Your task to perform on an android device: turn off sleep mode Image 0: 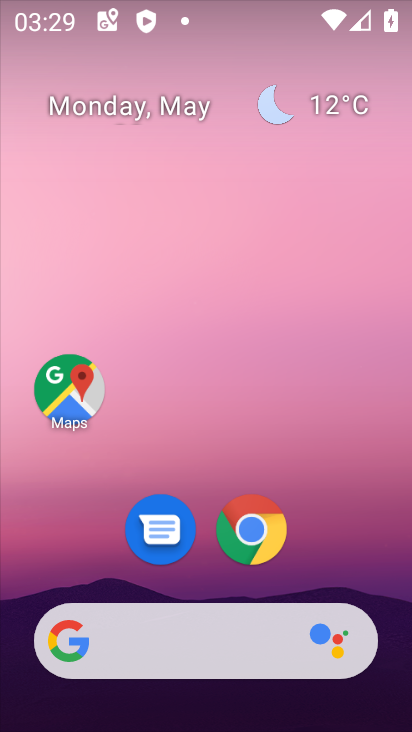
Step 0: drag from (337, 512) to (338, 106)
Your task to perform on an android device: turn off sleep mode Image 1: 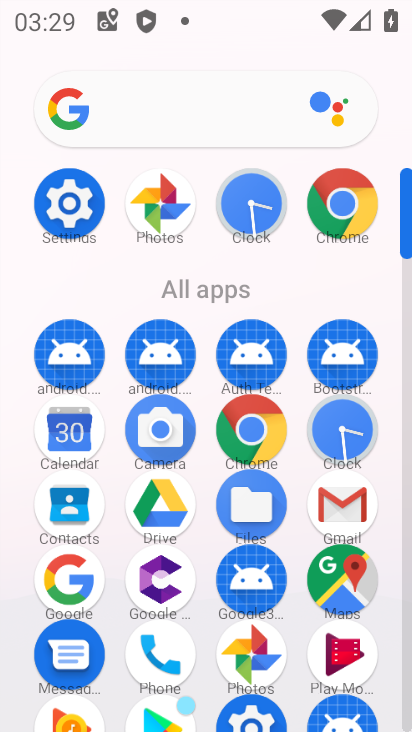
Step 1: click (57, 194)
Your task to perform on an android device: turn off sleep mode Image 2: 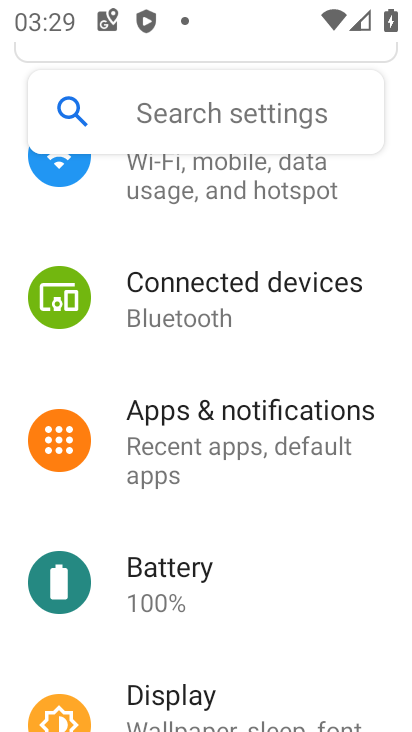
Step 2: drag from (226, 239) to (317, 560)
Your task to perform on an android device: turn off sleep mode Image 3: 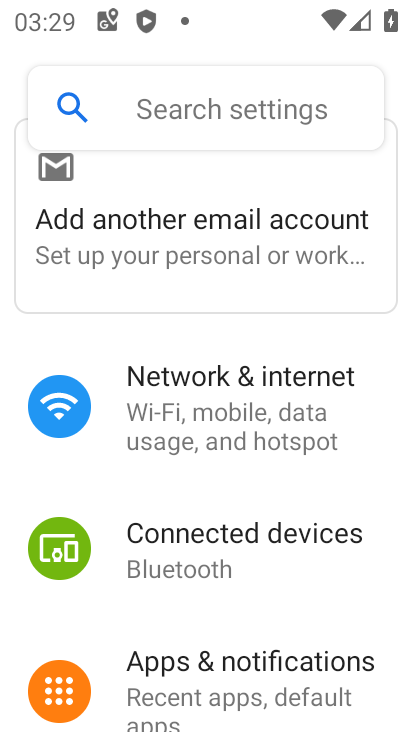
Step 3: drag from (289, 426) to (293, 128)
Your task to perform on an android device: turn off sleep mode Image 4: 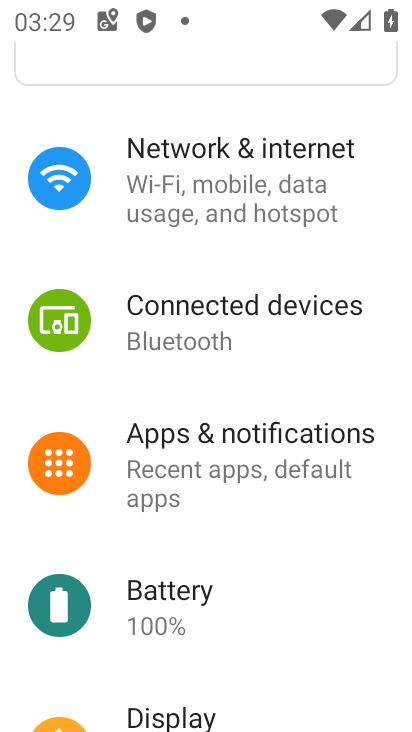
Step 4: drag from (232, 586) to (223, 233)
Your task to perform on an android device: turn off sleep mode Image 5: 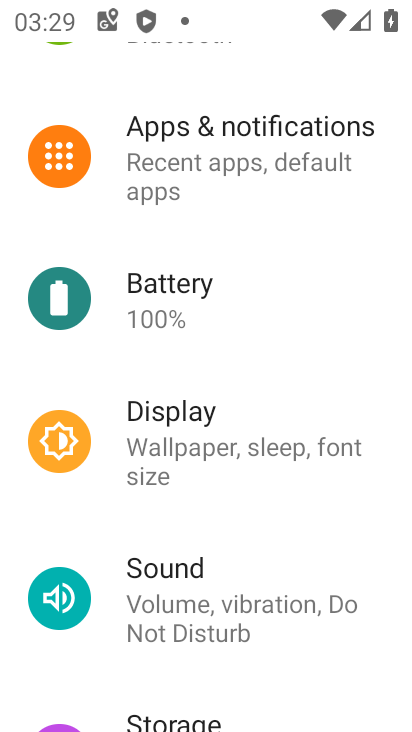
Step 5: drag from (223, 234) to (237, 346)
Your task to perform on an android device: turn off sleep mode Image 6: 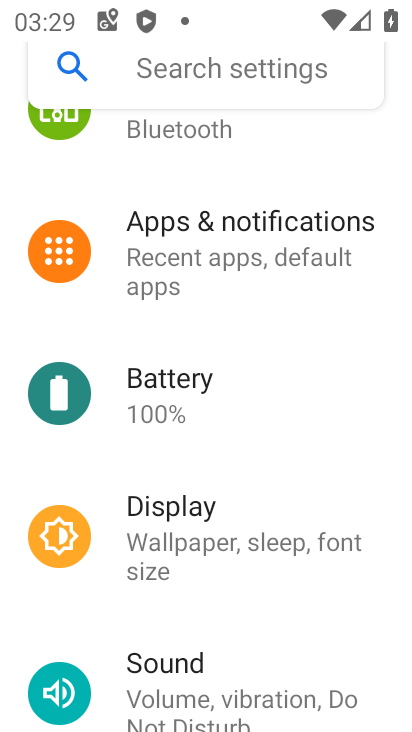
Step 6: click (215, 495)
Your task to perform on an android device: turn off sleep mode Image 7: 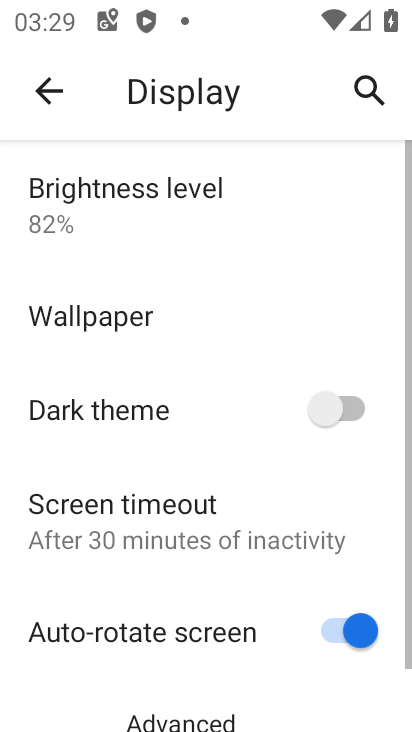
Step 7: drag from (215, 453) to (231, 73)
Your task to perform on an android device: turn off sleep mode Image 8: 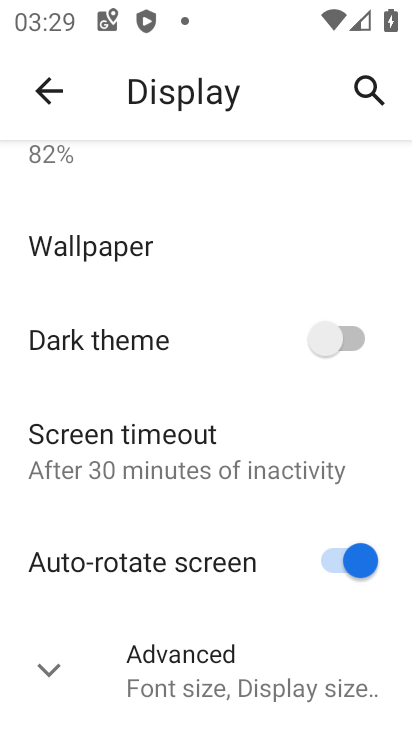
Step 8: click (157, 440)
Your task to perform on an android device: turn off sleep mode Image 9: 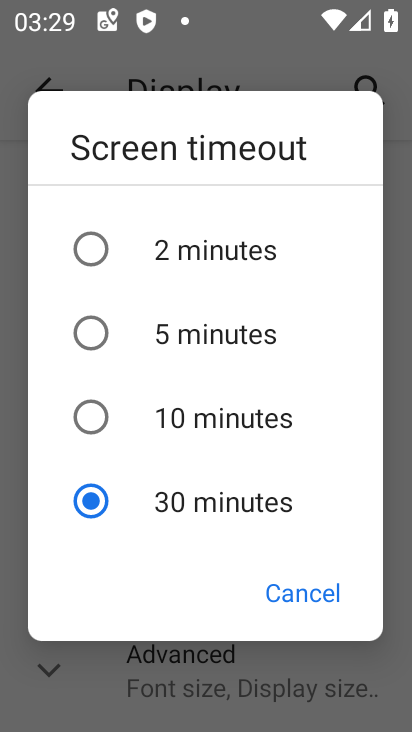
Step 9: task complete